Your task to perform on an android device: When is my next meeting? Image 0: 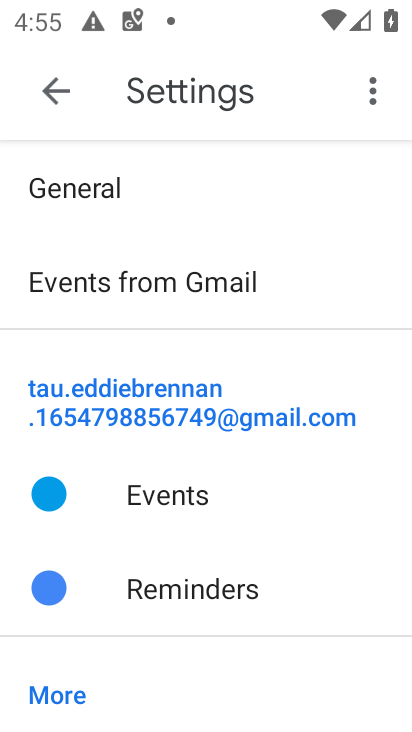
Step 0: press home button
Your task to perform on an android device: When is my next meeting? Image 1: 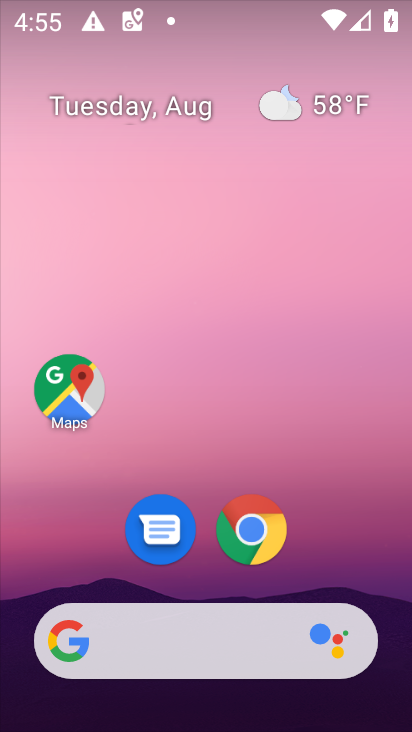
Step 1: drag from (194, 481) to (193, 82)
Your task to perform on an android device: When is my next meeting? Image 2: 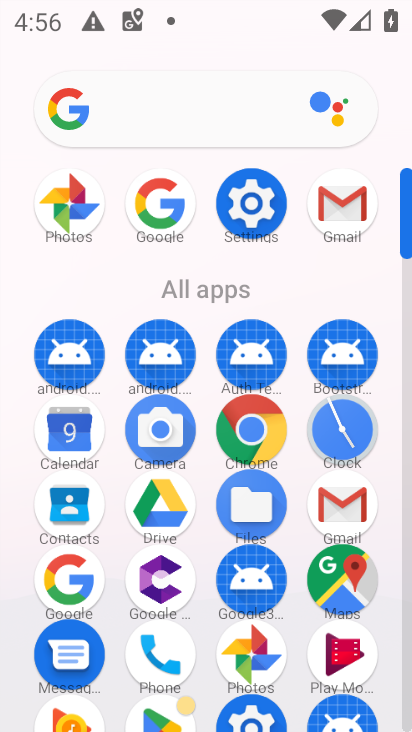
Step 2: click (65, 448)
Your task to perform on an android device: When is my next meeting? Image 3: 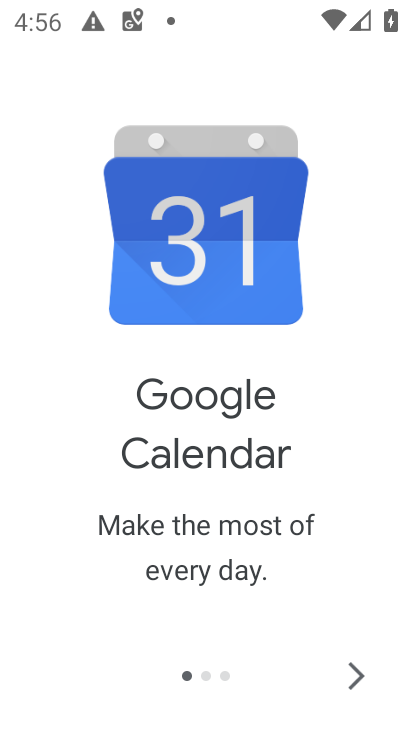
Step 3: click (349, 673)
Your task to perform on an android device: When is my next meeting? Image 4: 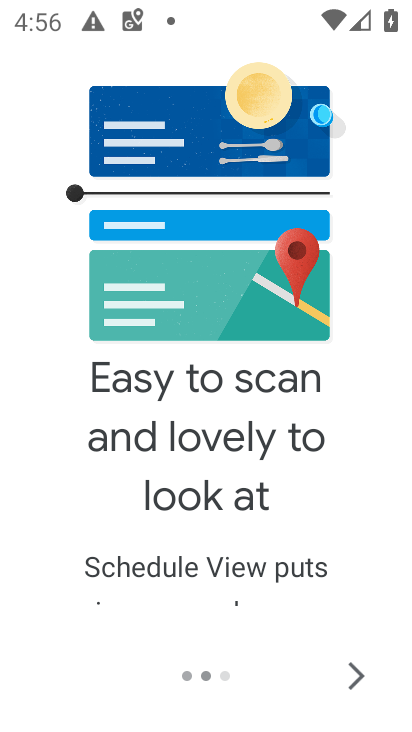
Step 4: click (349, 673)
Your task to perform on an android device: When is my next meeting? Image 5: 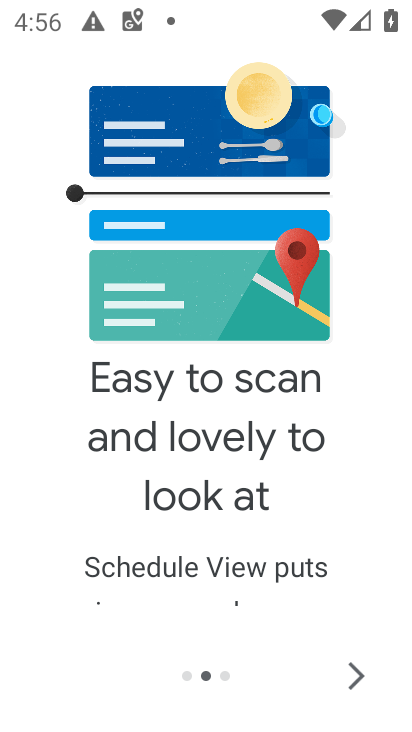
Step 5: click (349, 673)
Your task to perform on an android device: When is my next meeting? Image 6: 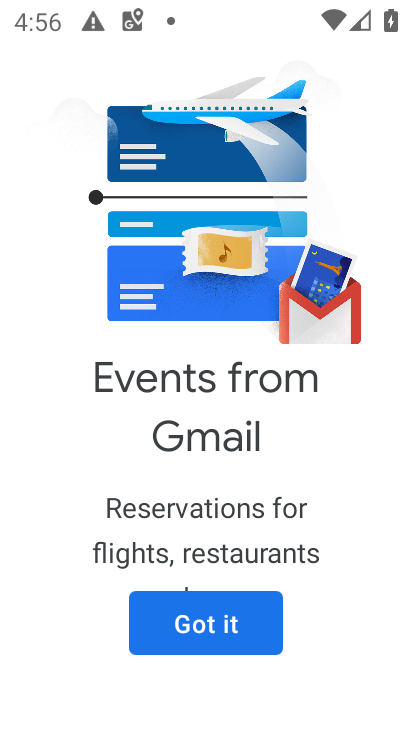
Step 6: click (259, 640)
Your task to perform on an android device: When is my next meeting? Image 7: 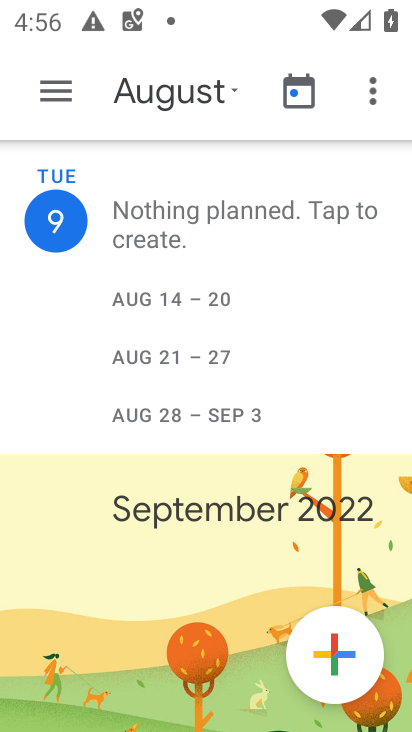
Step 7: click (223, 100)
Your task to perform on an android device: When is my next meeting? Image 8: 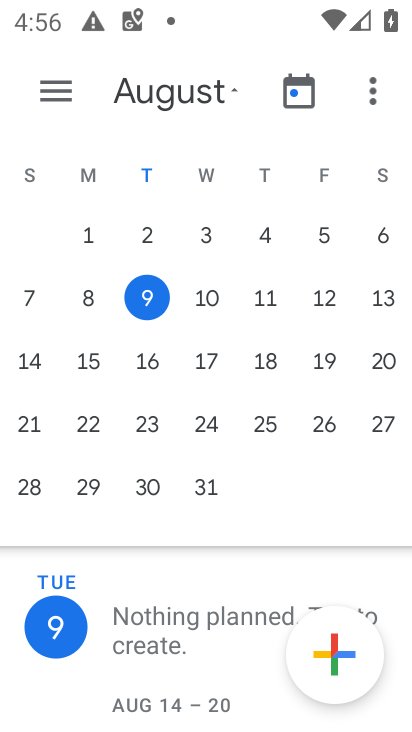
Step 8: click (205, 290)
Your task to perform on an android device: When is my next meeting? Image 9: 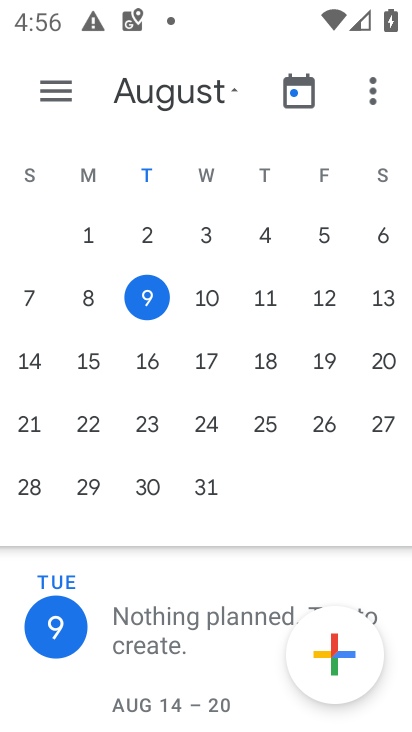
Step 9: click (234, 295)
Your task to perform on an android device: When is my next meeting? Image 10: 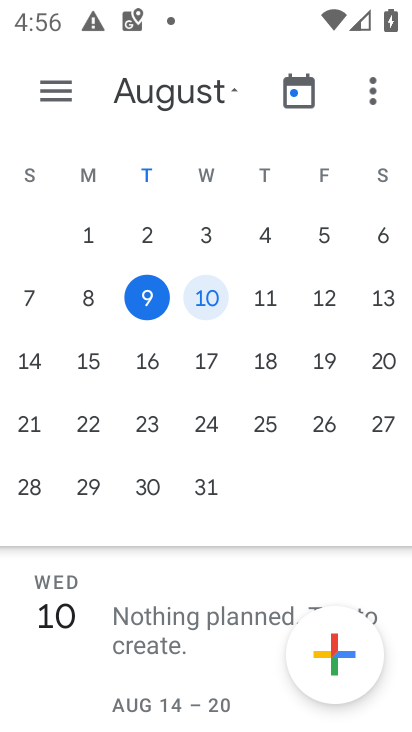
Step 10: click (277, 305)
Your task to perform on an android device: When is my next meeting? Image 11: 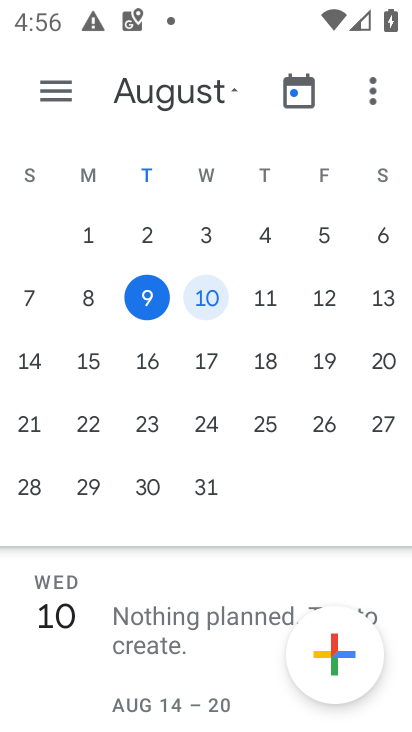
Step 11: click (308, 297)
Your task to perform on an android device: When is my next meeting? Image 12: 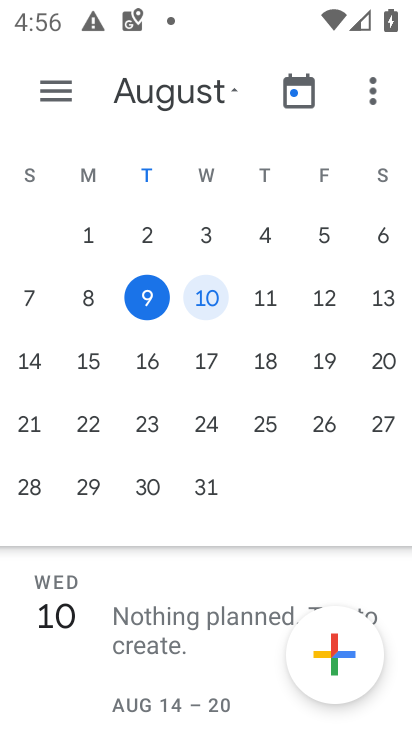
Step 12: click (349, 306)
Your task to perform on an android device: When is my next meeting? Image 13: 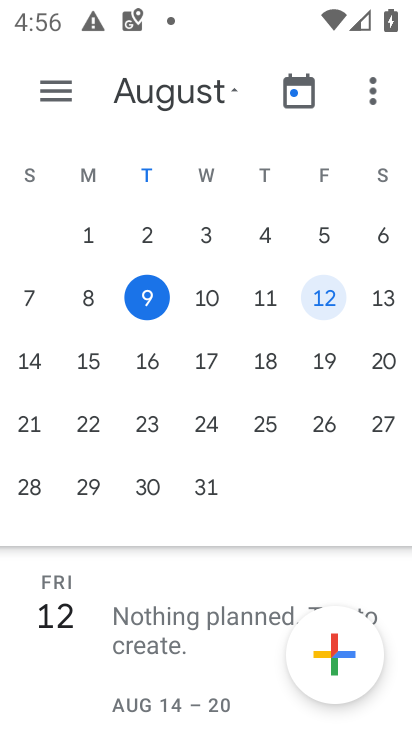
Step 13: task complete